Your task to perform on an android device: Open Maps and search for coffee Image 0: 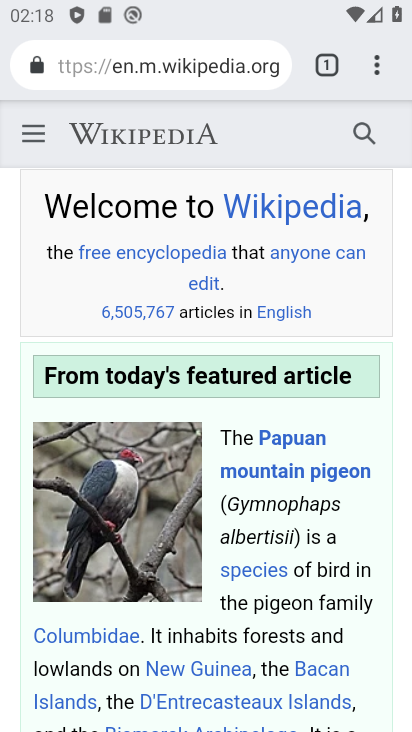
Step 0: press home button
Your task to perform on an android device: Open Maps and search for coffee Image 1: 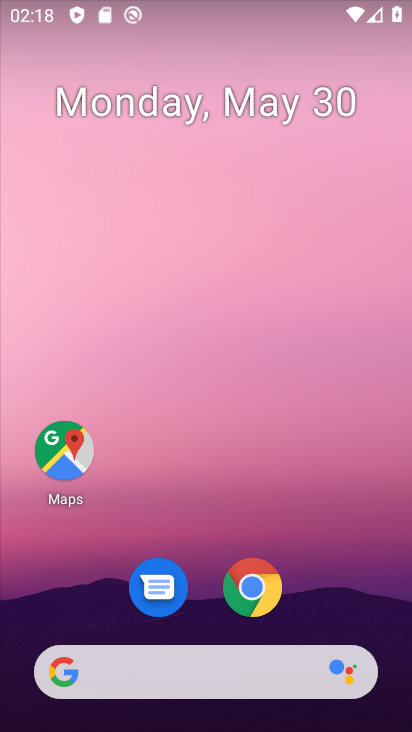
Step 1: click (51, 443)
Your task to perform on an android device: Open Maps and search for coffee Image 2: 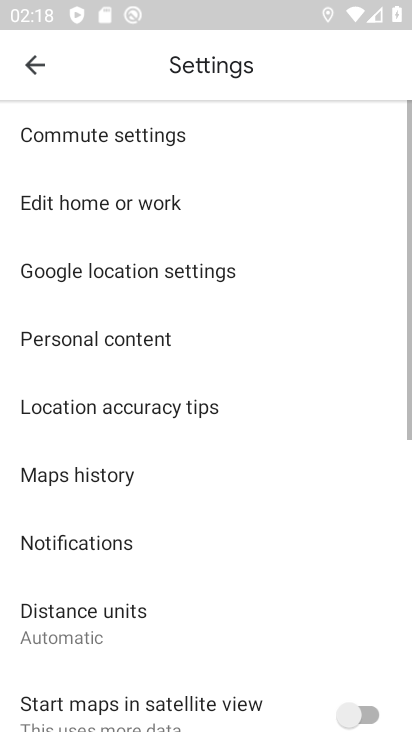
Step 2: click (40, 70)
Your task to perform on an android device: Open Maps and search for coffee Image 3: 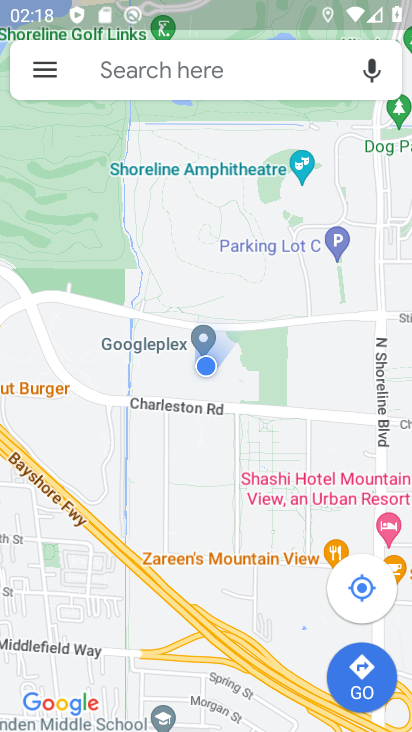
Step 3: click (191, 79)
Your task to perform on an android device: Open Maps and search for coffee Image 4: 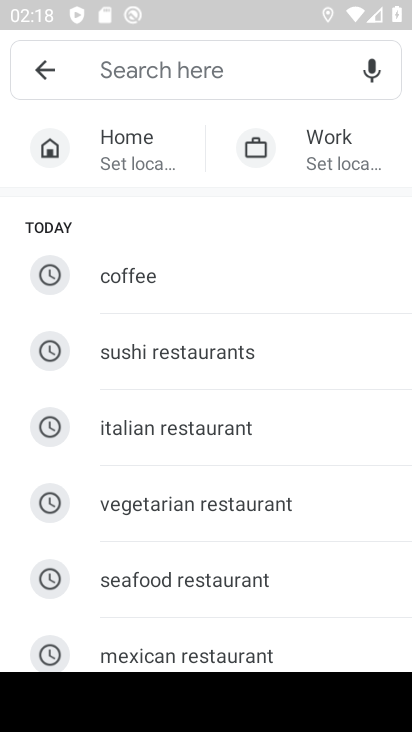
Step 4: click (222, 282)
Your task to perform on an android device: Open Maps and search for coffee Image 5: 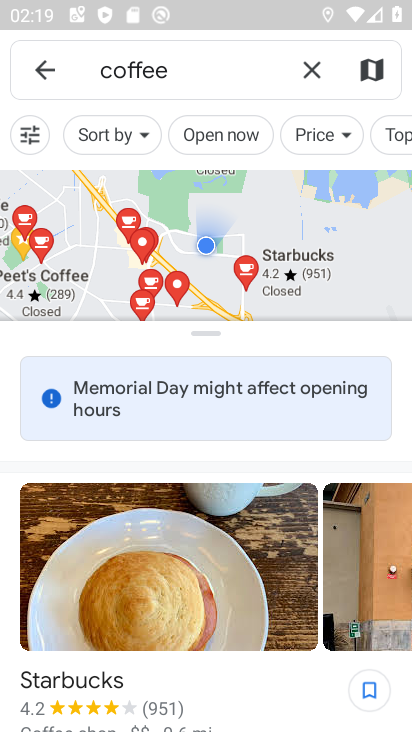
Step 5: task complete